Your task to perform on an android device: Open Yahoo.com Image 0: 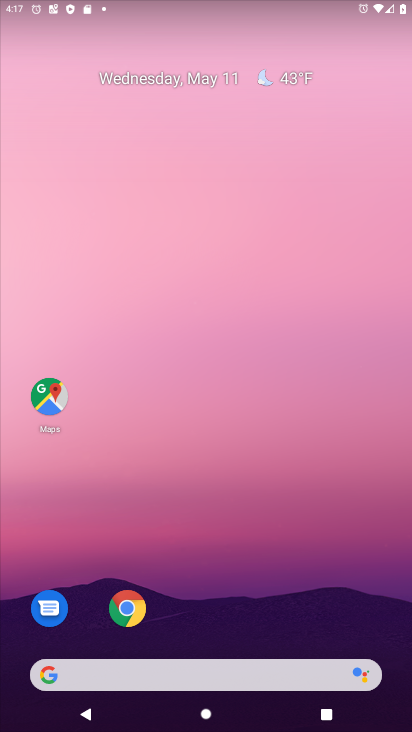
Step 0: click (127, 611)
Your task to perform on an android device: Open Yahoo.com Image 1: 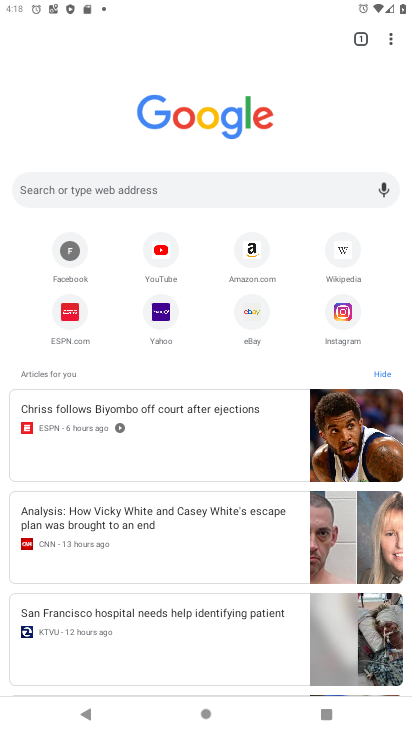
Step 1: click (158, 312)
Your task to perform on an android device: Open Yahoo.com Image 2: 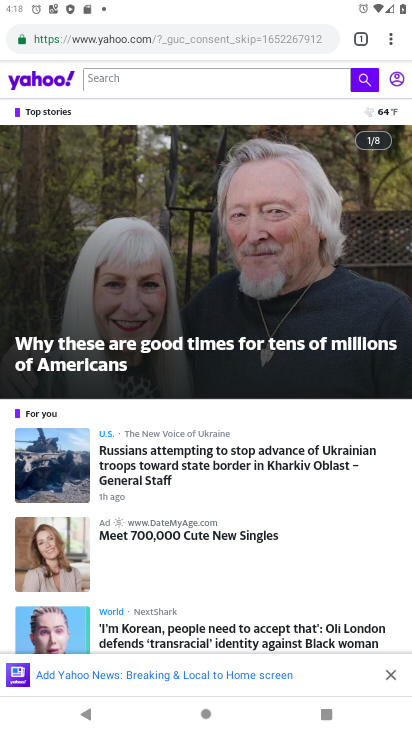
Step 2: task complete